Your task to perform on an android device: Check the news Image 0: 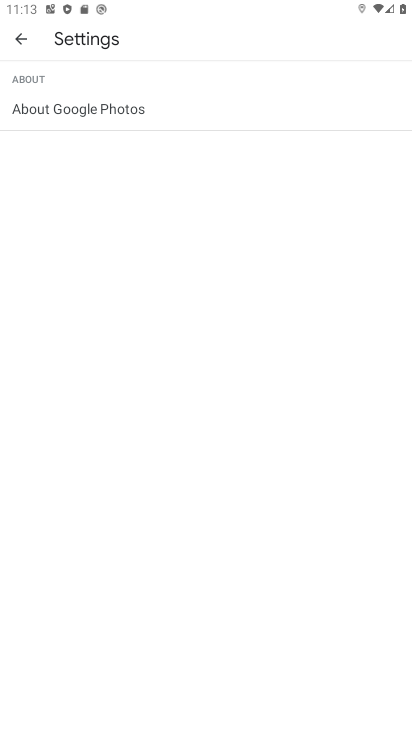
Step 0: press home button
Your task to perform on an android device: Check the news Image 1: 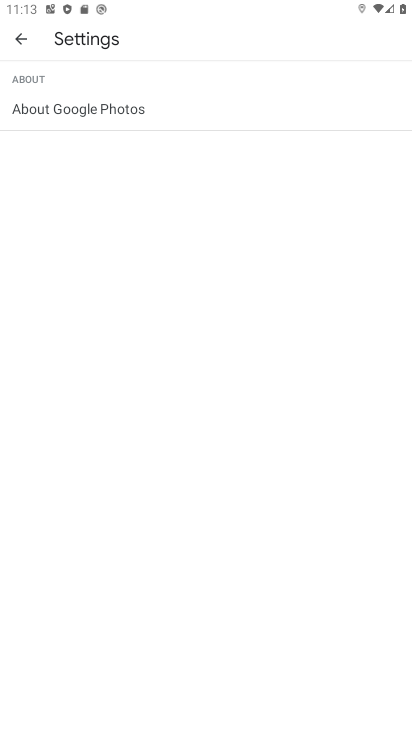
Step 1: task complete